Your task to perform on an android device: Open Reddit.com Image 0: 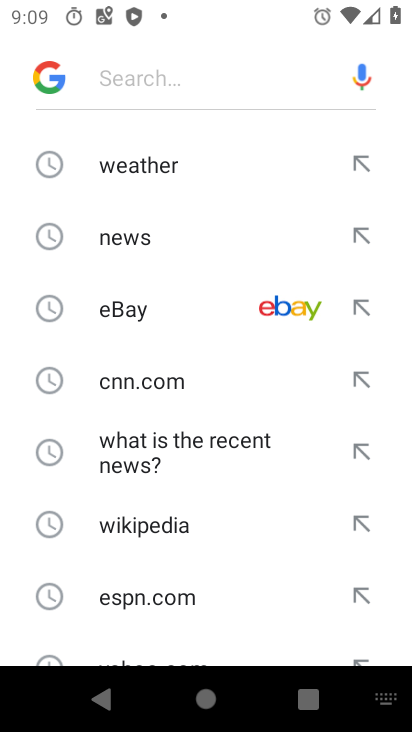
Step 0: type "reddit.com"
Your task to perform on an android device: Open Reddit.com Image 1: 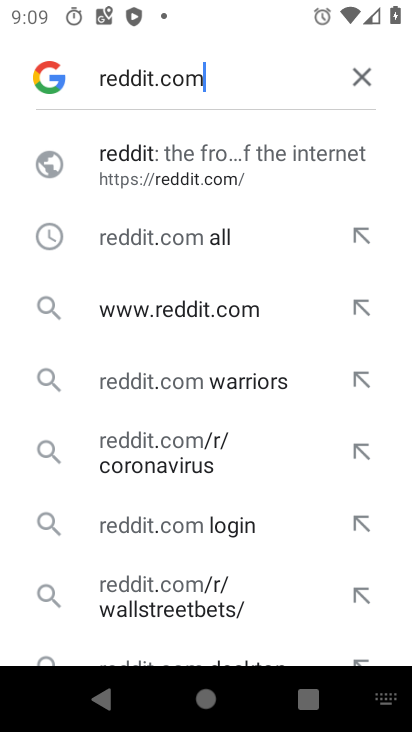
Step 1: click (156, 319)
Your task to perform on an android device: Open Reddit.com Image 2: 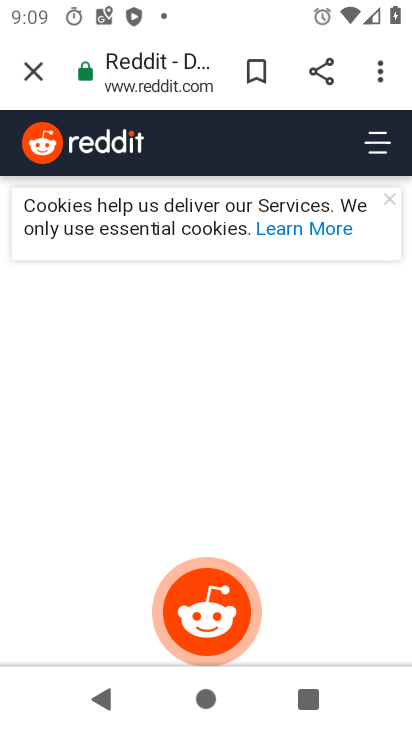
Step 2: task complete